Your task to perform on an android device: delete location history Image 0: 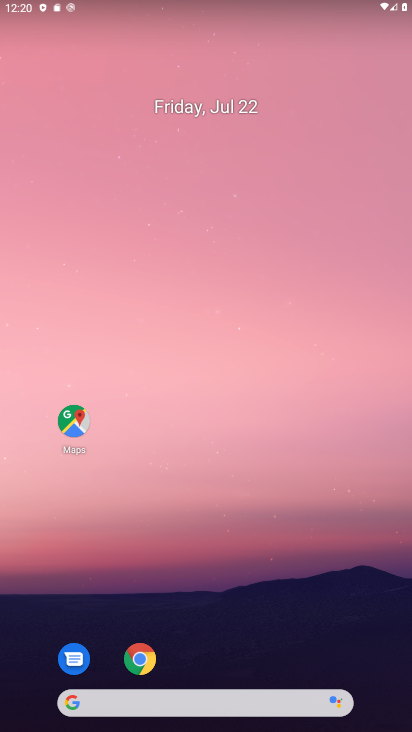
Step 0: drag from (234, 655) to (223, 102)
Your task to perform on an android device: delete location history Image 1: 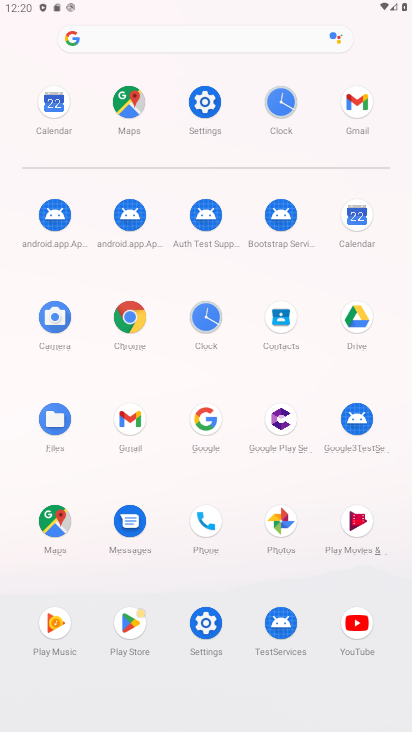
Step 1: click (219, 634)
Your task to perform on an android device: delete location history Image 2: 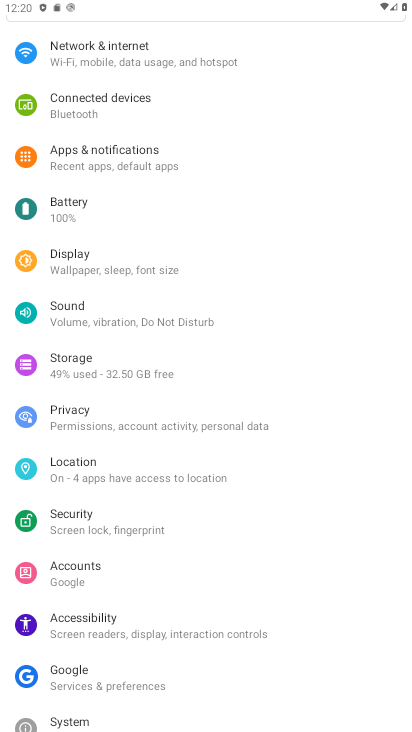
Step 2: task complete